Your task to perform on an android device: Open eBay Image 0: 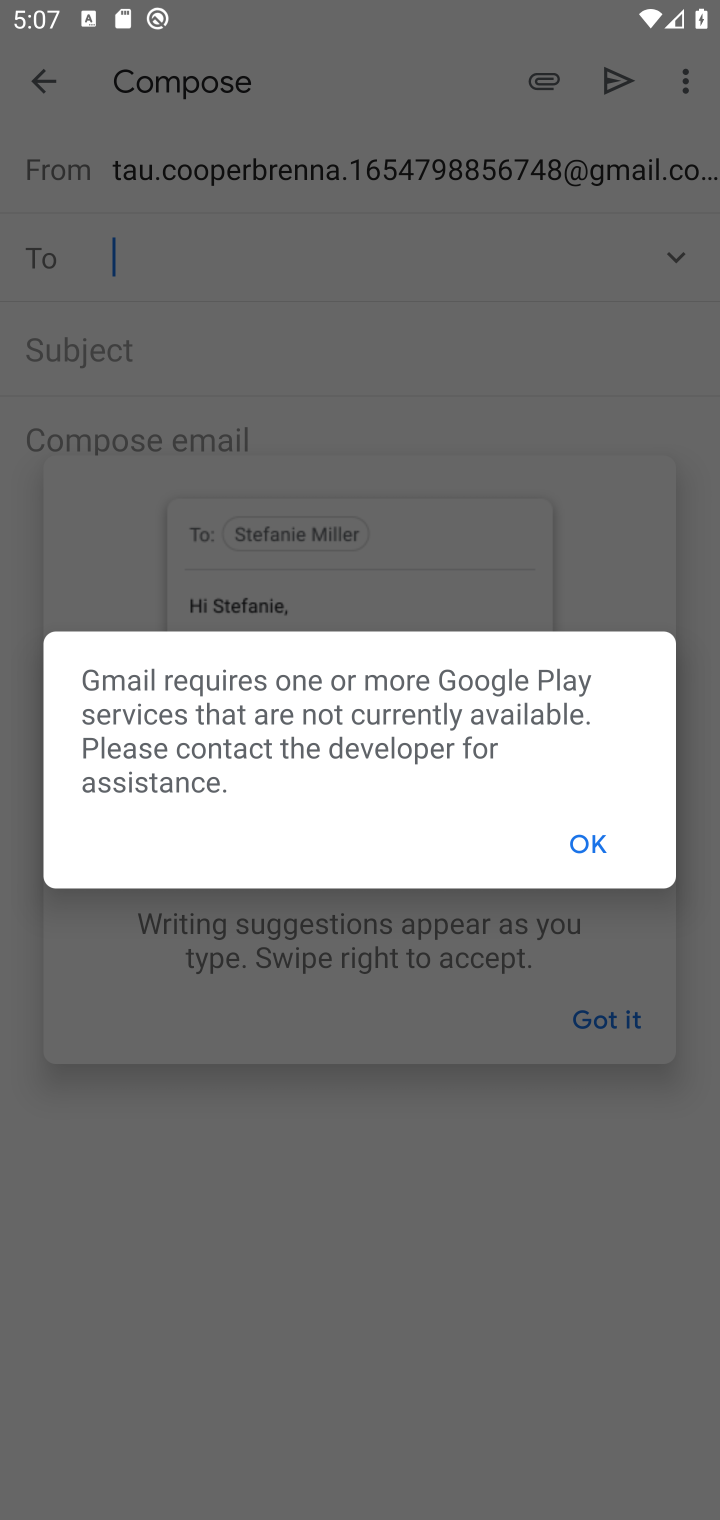
Step 0: press home button
Your task to perform on an android device: Open eBay Image 1: 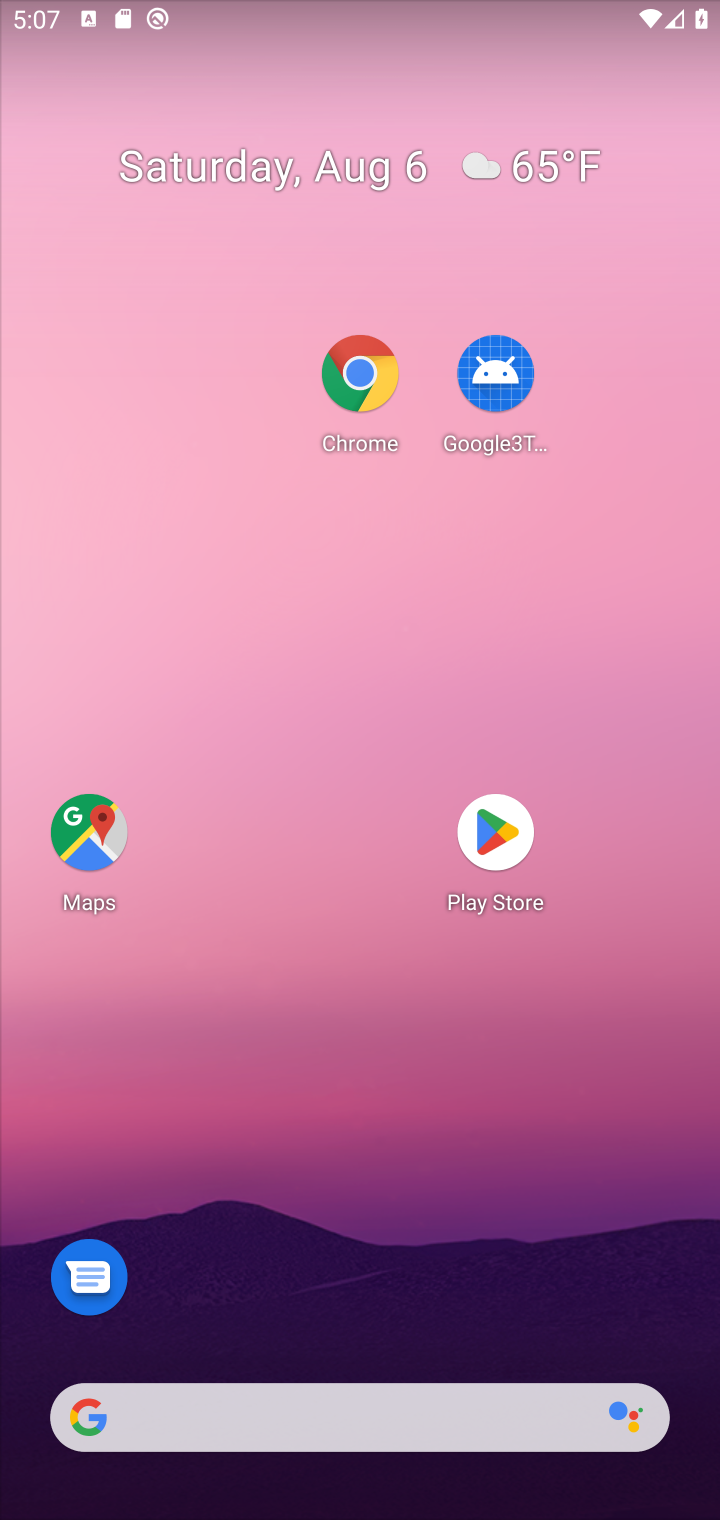
Step 1: drag from (251, 1418) to (426, 125)
Your task to perform on an android device: Open eBay Image 2: 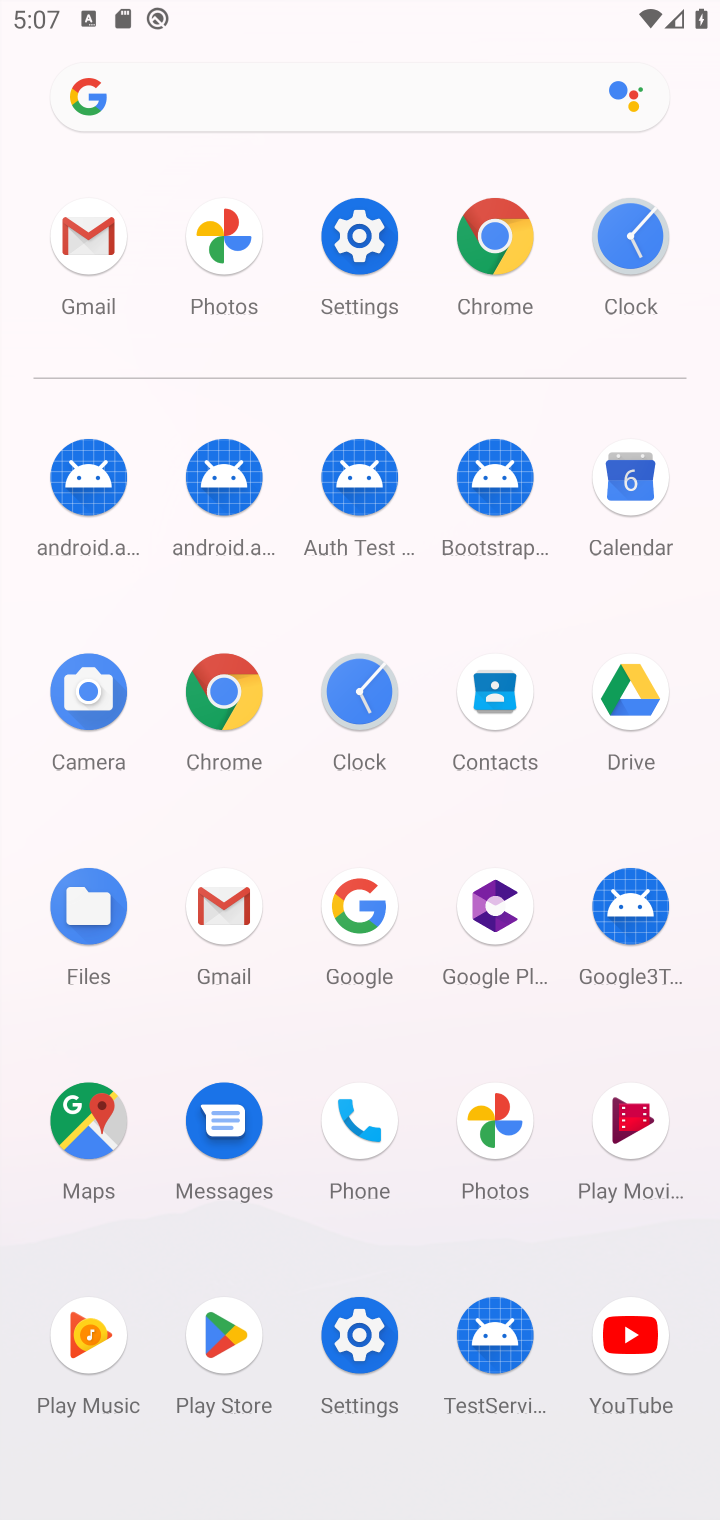
Step 2: click (243, 692)
Your task to perform on an android device: Open eBay Image 3: 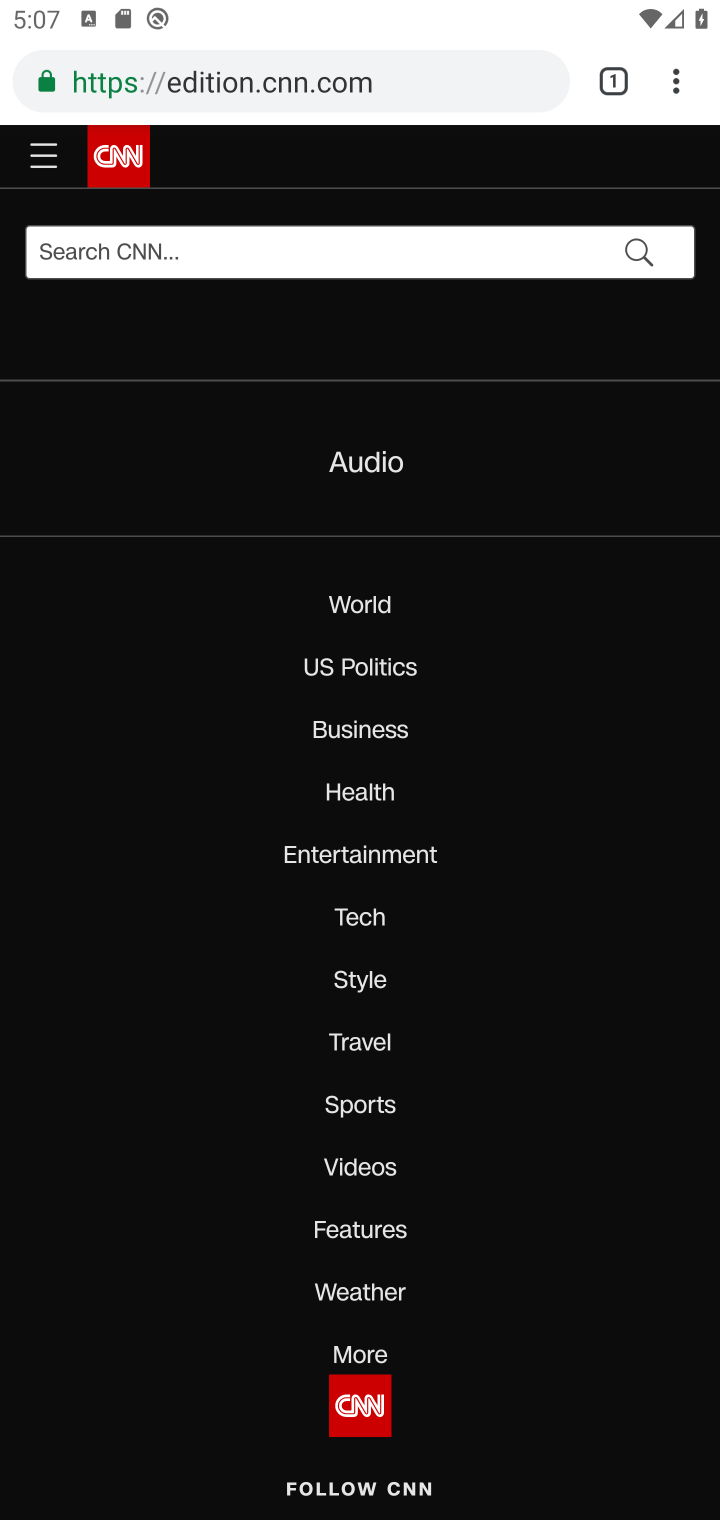
Step 3: click (678, 77)
Your task to perform on an android device: Open eBay Image 4: 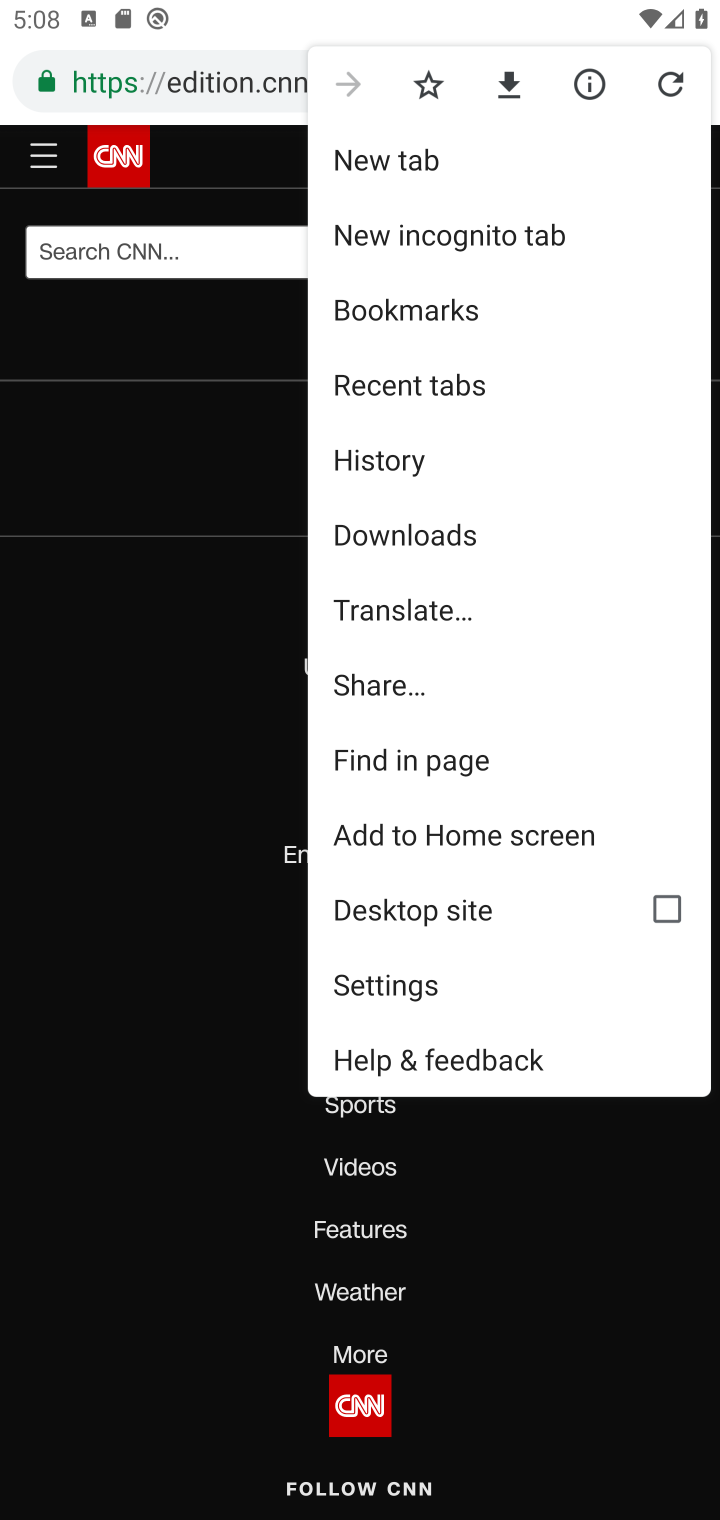
Step 4: click (423, 155)
Your task to perform on an android device: Open eBay Image 5: 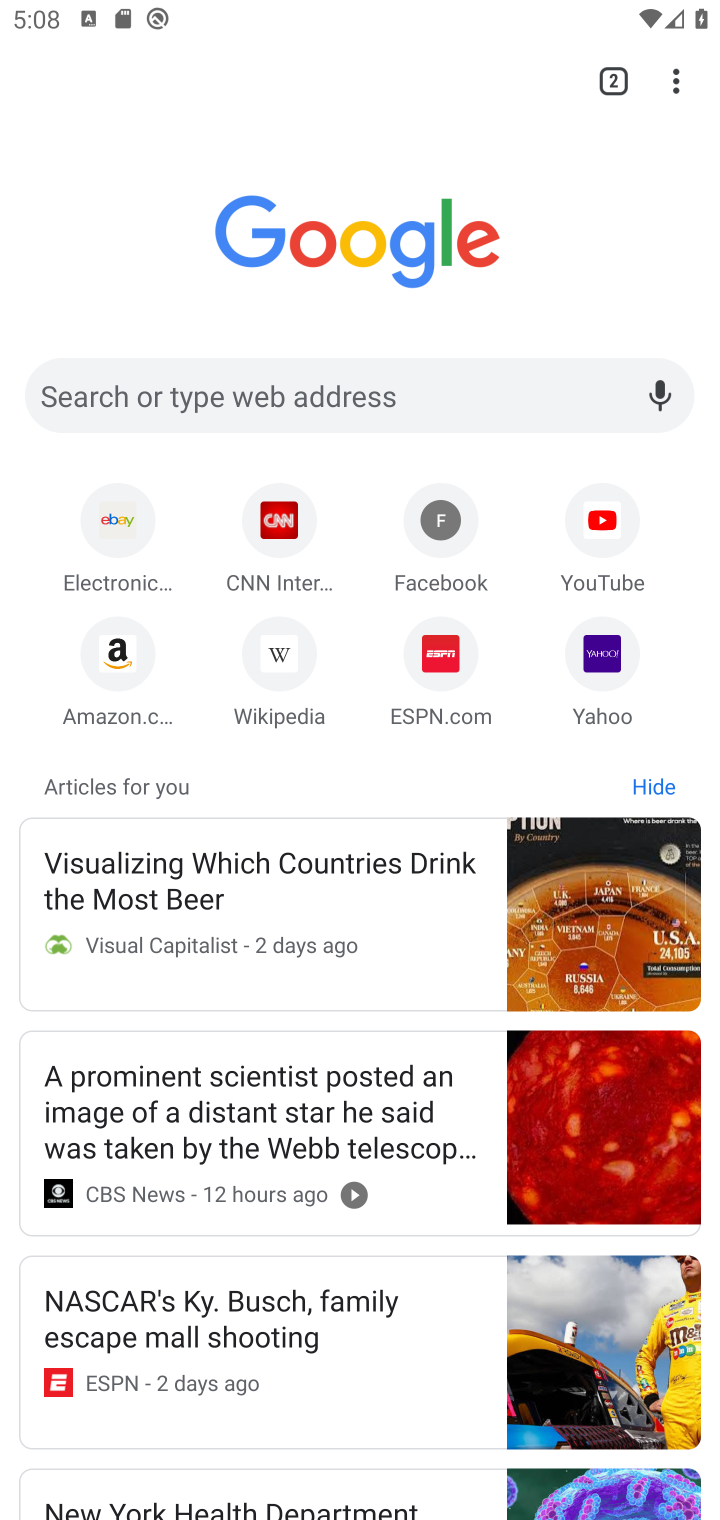
Step 5: click (114, 525)
Your task to perform on an android device: Open eBay Image 6: 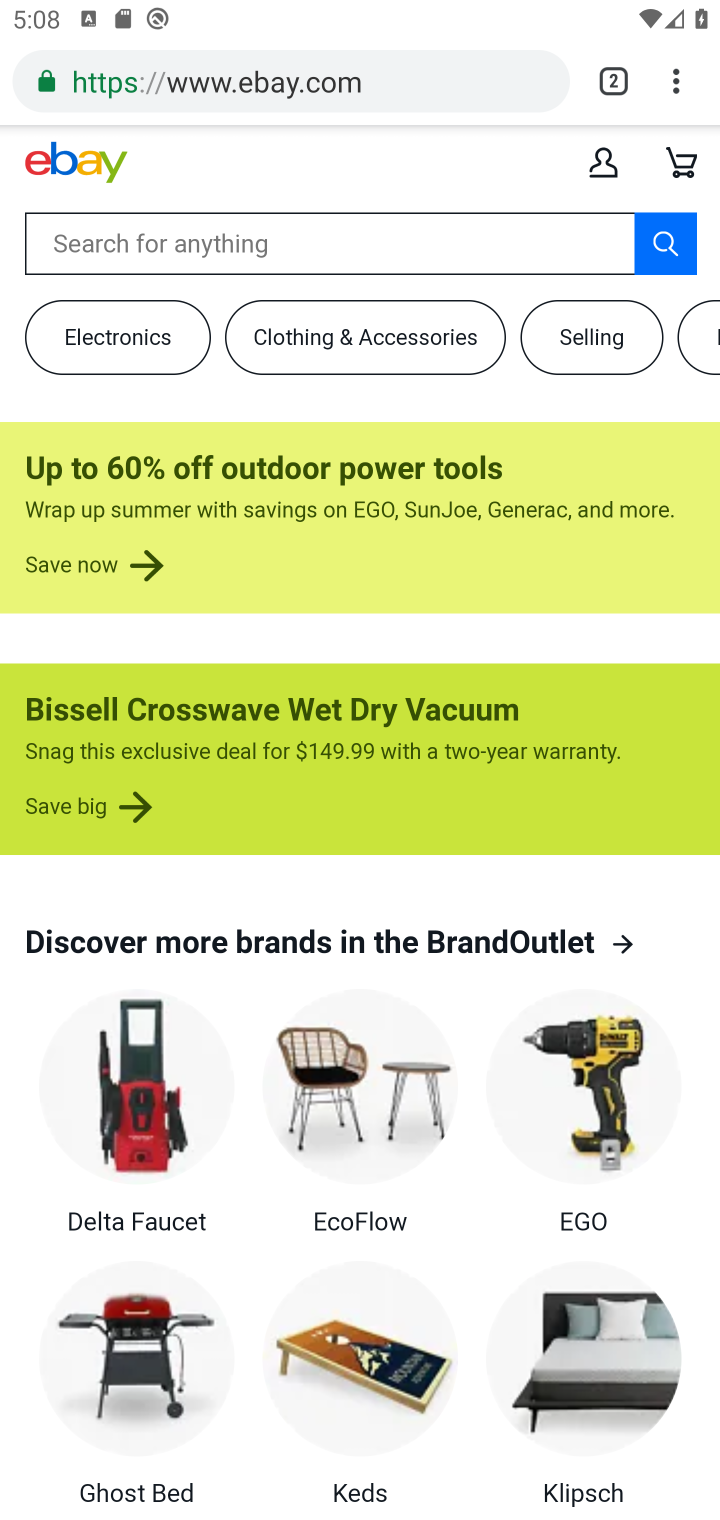
Step 6: task complete